Your task to perform on an android device: turn on wifi Image 0: 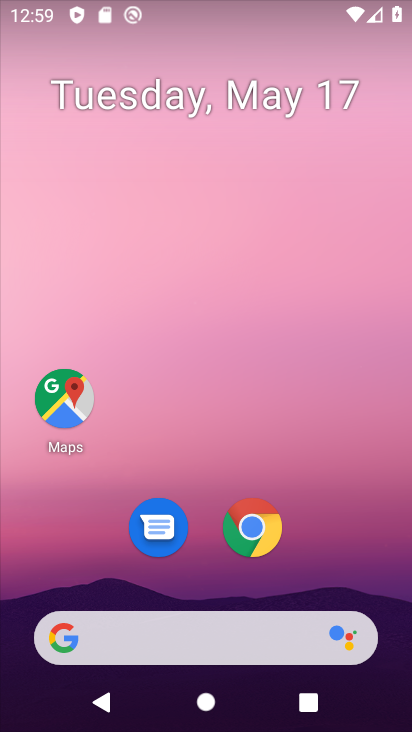
Step 0: drag from (178, 593) to (265, 171)
Your task to perform on an android device: turn on wifi Image 1: 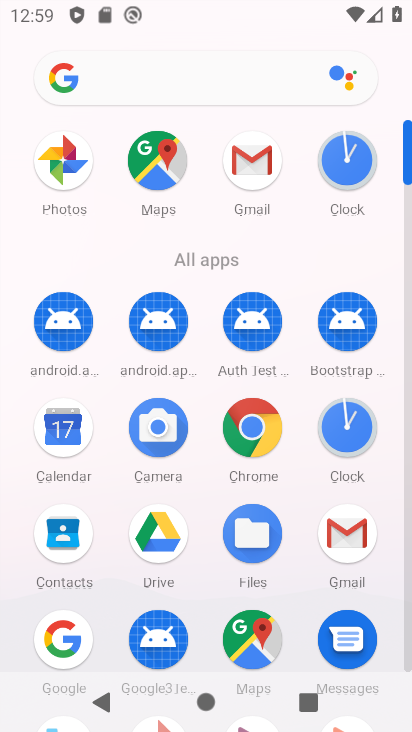
Step 1: drag from (153, 630) to (219, 276)
Your task to perform on an android device: turn on wifi Image 2: 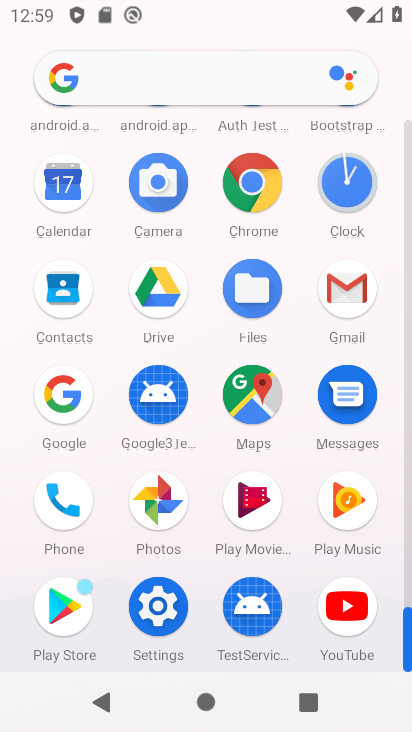
Step 2: click (157, 602)
Your task to perform on an android device: turn on wifi Image 3: 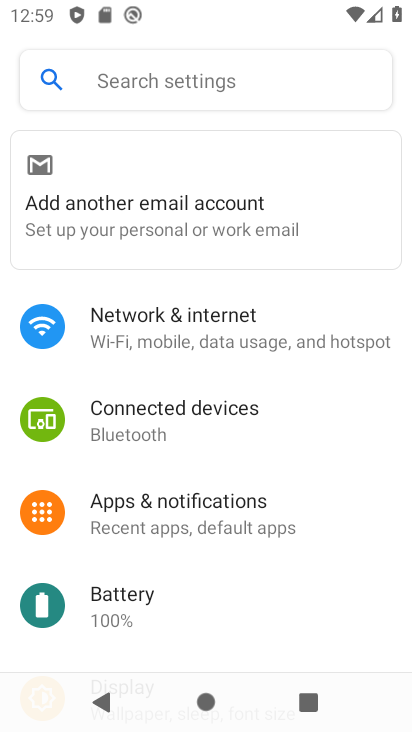
Step 3: click (260, 321)
Your task to perform on an android device: turn on wifi Image 4: 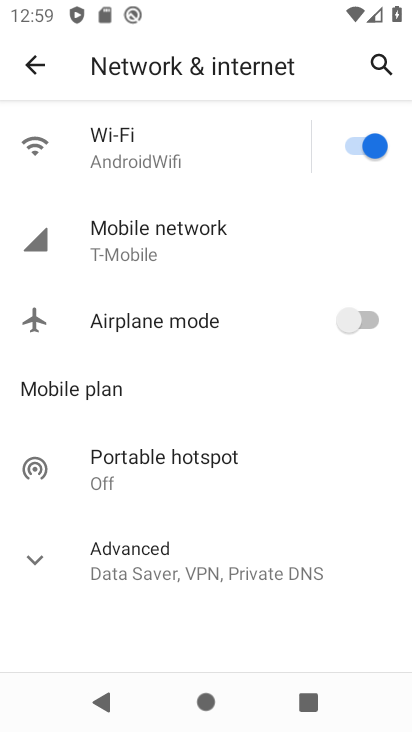
Step 4: task complete